Your task to perform on an android device: Open eBay Image 0: 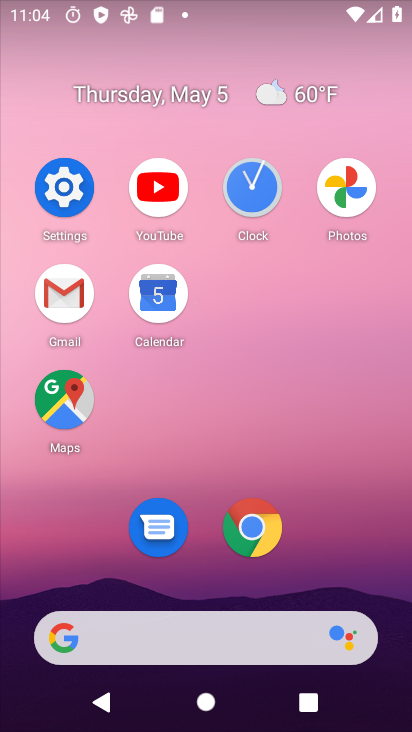
Step 0: click (249, 533)
Your task to perform on an android device: Open eBay Image 1: 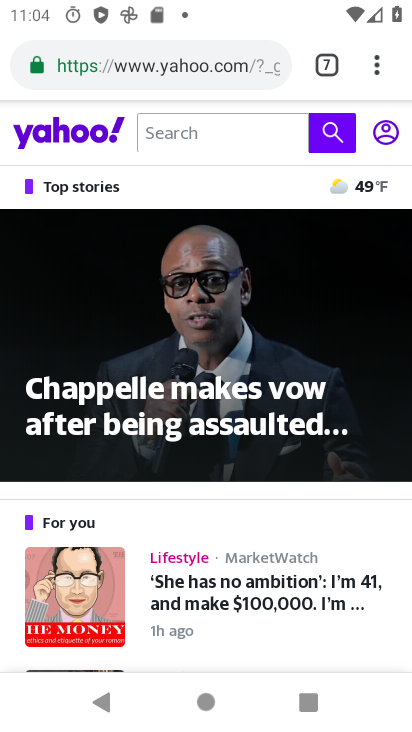
Step 1: click (328, 71)
Your task to perform on an android device: Open eBay Image 2: 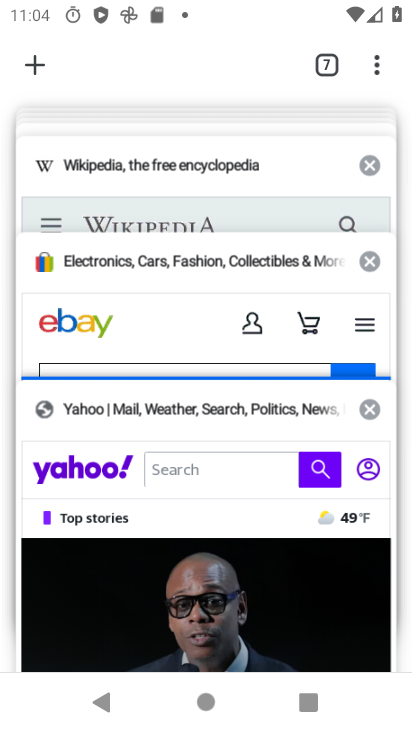
Step 2: click (44, 64)
Your task to perform on an android device: Open eBay Image 3: 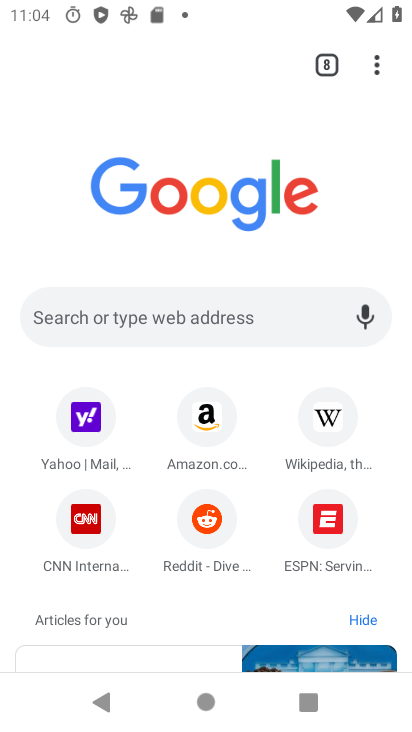
Step 3: click (166, 307)
Your task to perform on an android device: Open eBay Image 4: 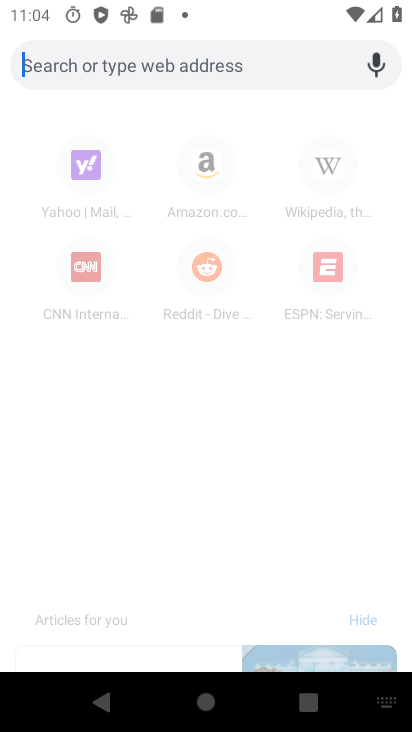
Step 4: type "ebay"
Your task to perform on an android device: Open eBay Image 5: 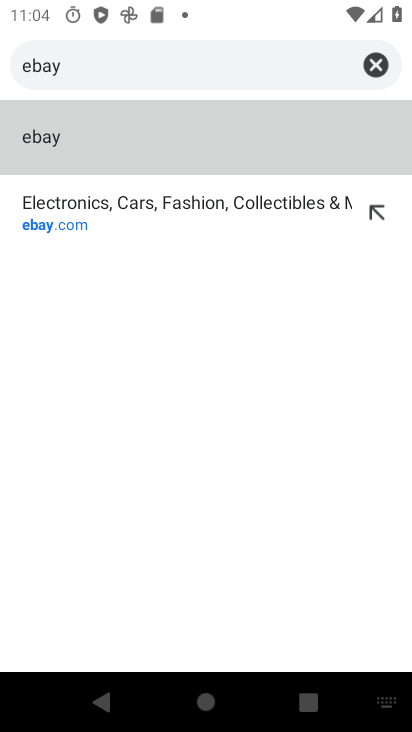
Step 5: click (73, 224)
Your task to perform on an android device: Open eBay Image 6: 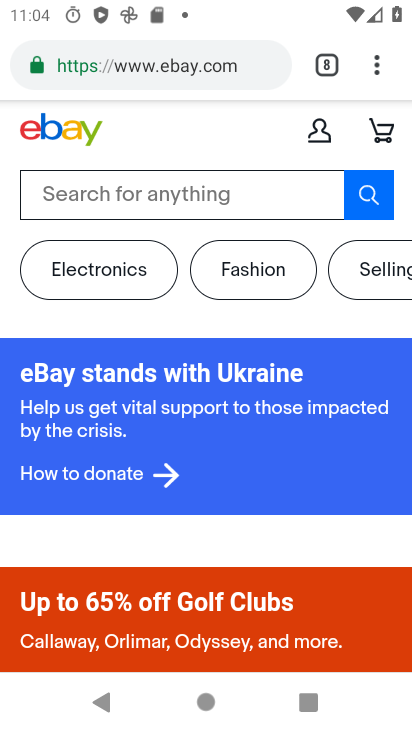
Step 6: task complete